Your task to perform on an android device: change notification settings in the gmail app Image 0: 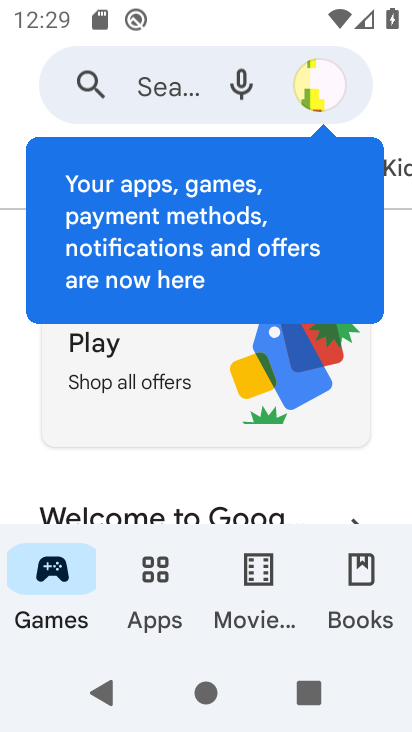
Step 0: press home button
Your task to perform on an android device: change notification settings in the gmail app Image 1: 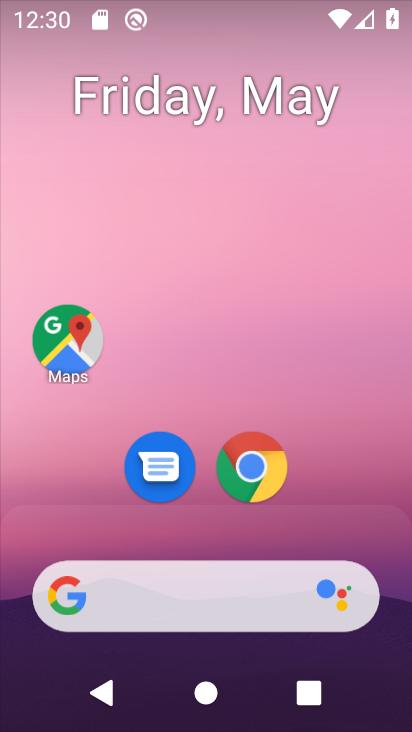
Step 1: drag from (378, 561) to (360, 89)
Your task to perform on an android device: change notification settings in the gmail app Image 2: 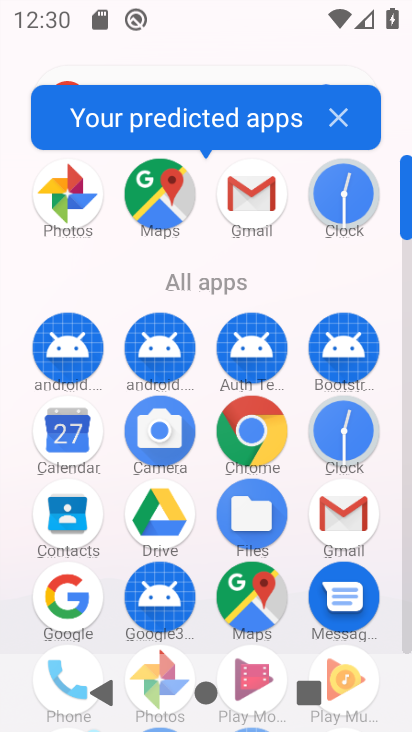
Step 2: click (255, 177)
Your task to perform on an android device: change notification settings in the gmail app Image 3: 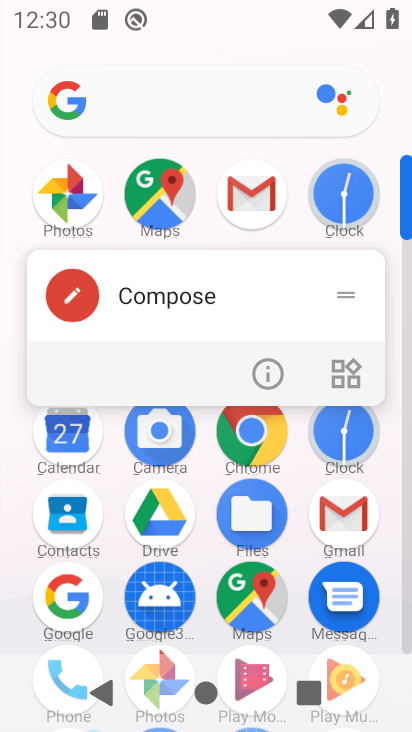
Step 3: click (253, 192)
Your task to perform on an android device: change notification settings in the gmail app Image 4: 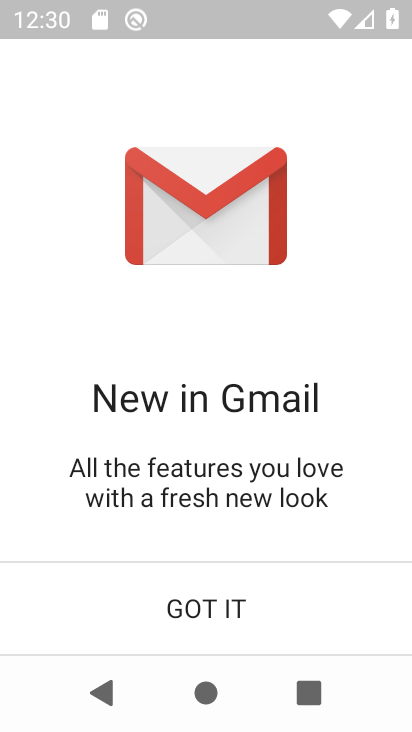
Step 4: click (215, 603)
Your task to perform on an android device: change notification settings in the gmail app Image 5: 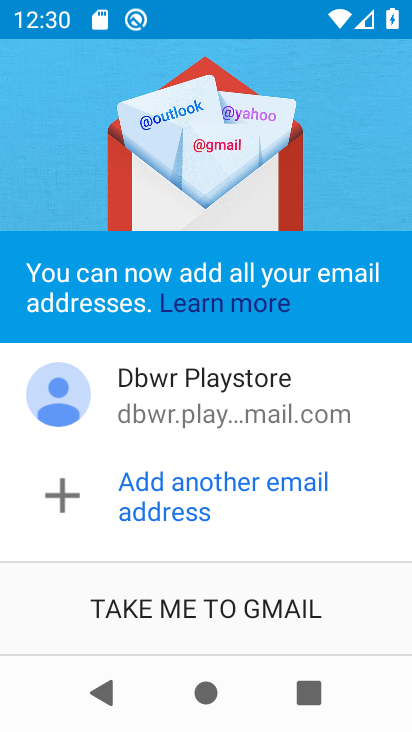
Step 5: click (214, 605)
Your task to perform on an android device: change notification settings in the gmail app Image 6: 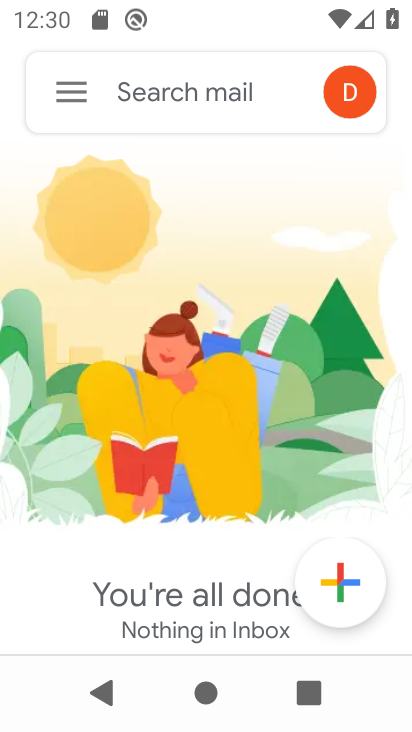
Step 6: click (74, 101)
Your task to perform on an android device: change notification settings in the gmail app Image 7: 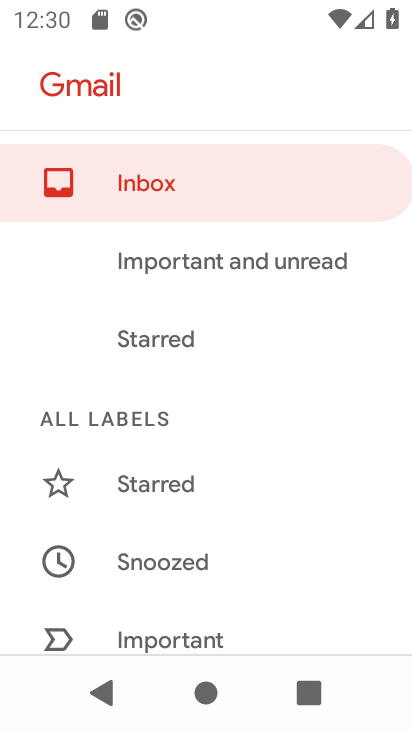
Step 7: drag from (166, 516) to (199, 162)
Your task to perform on an android device: change notification settings in the gmail app Image 8: 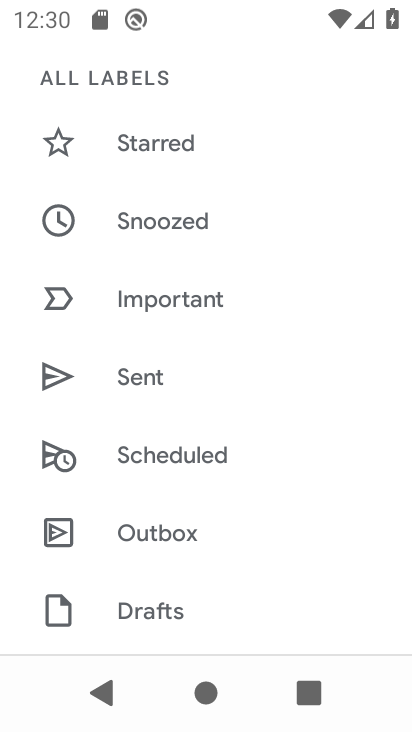
Step 8: drag from (186, 491) to (268, 120)
Your task to perform on an android device: change notification settings in the gmail app Image 9: 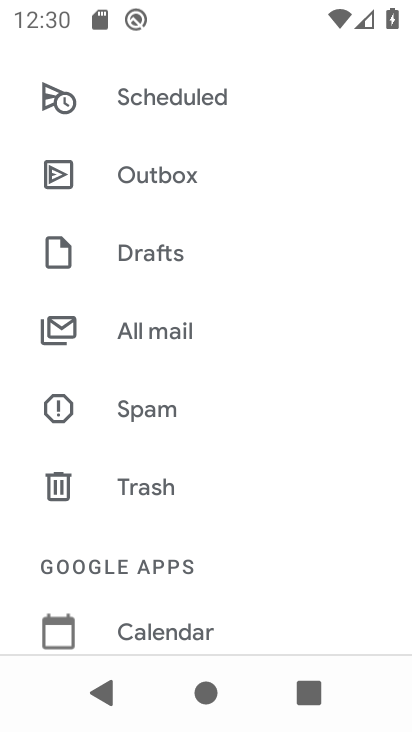
Step 9: drag from (203, 552) to (221, 158)
Your task to perform on an android device: change notification settings in the gmail app Image 10: 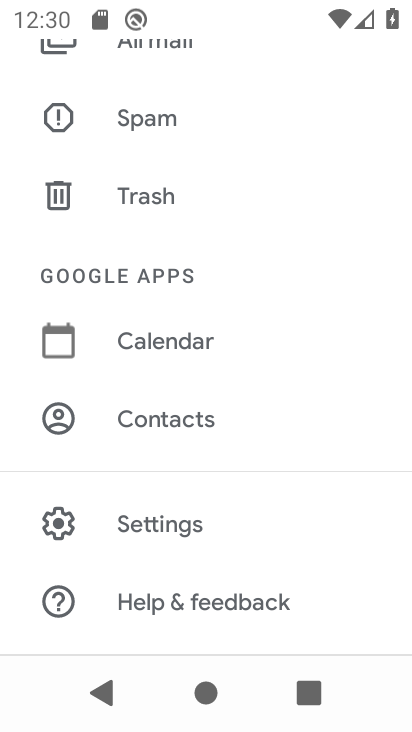
Step 10: click (163, 507)
Your task to perform on an android device: change notification settings in the gmail app Image 11: 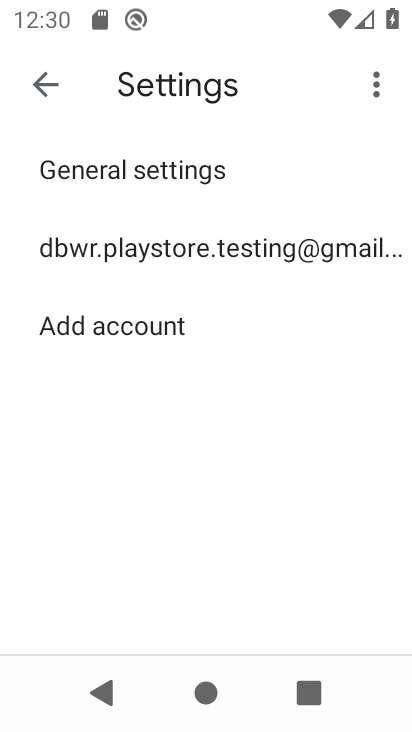
Step 11: click (51, 83)
Your task to perform on an android device: change notification settings in the gmail app Image 12: 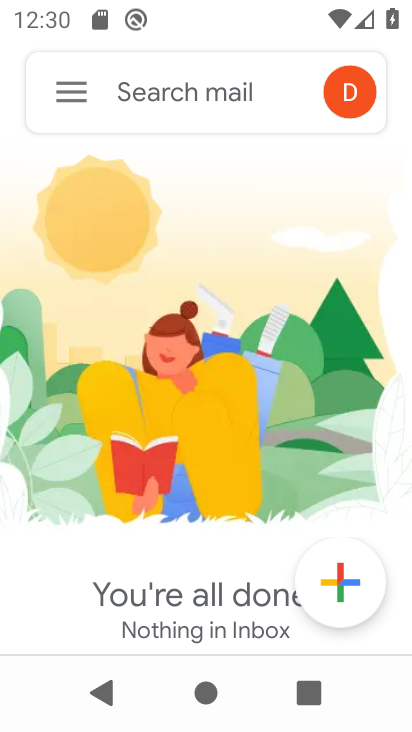
Step 12: click (73, 89)
Your task to perform on an android device: change notification settings in the gmail app Image 13: 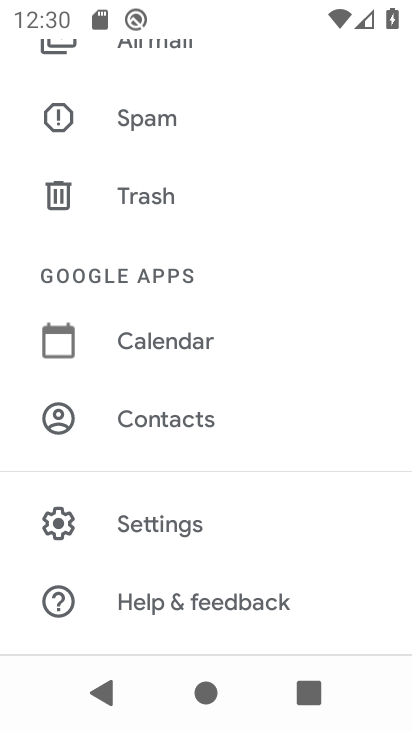
Step 13: drag from (190, 214) to (257, 634)
Your task to perform on an android device: change notification settings in the gmail app Image 14: 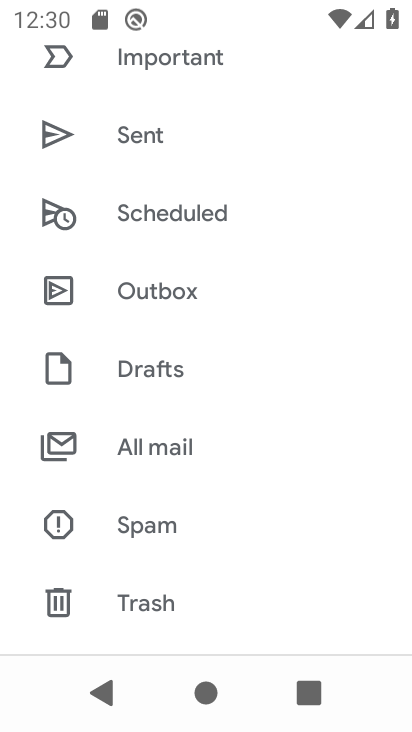
Step 14: drag from (233, 442) to (221, 638)
Your task to perform on an android device: change notification settings in the gmail app Image 15: 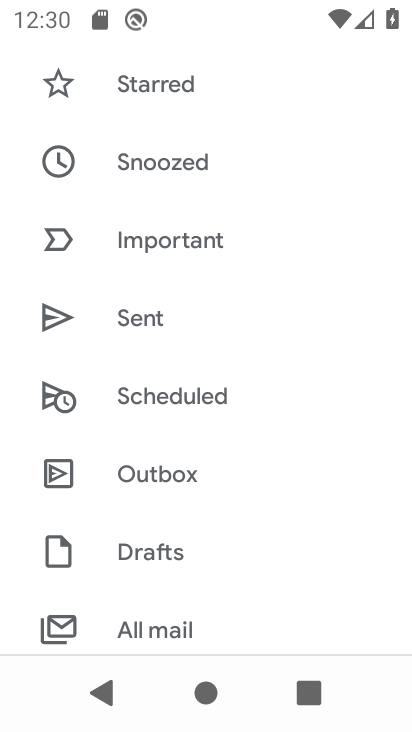
Step 15: drag from (205, 202) to (205, 550)
Your task to perform on an android device: change notification settings in the gmail app Image 16: 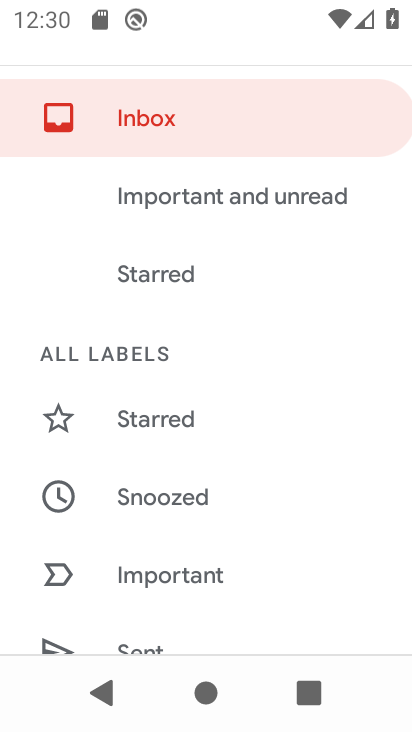
Step 16: drag from (216, 492) to (285, 132)
Your task to perform on an android device: change notification settings in the gmail app Image 17: 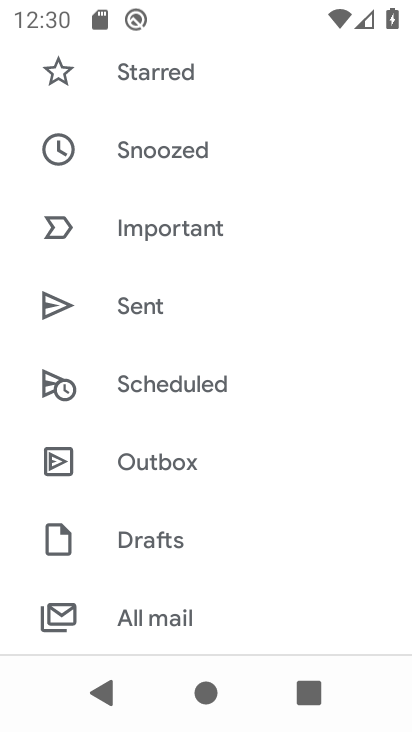
Step 17: drag from (291, 351) to (285, 74)
Your task to perform on an android device: change notification settings in the gmail app Image 18: 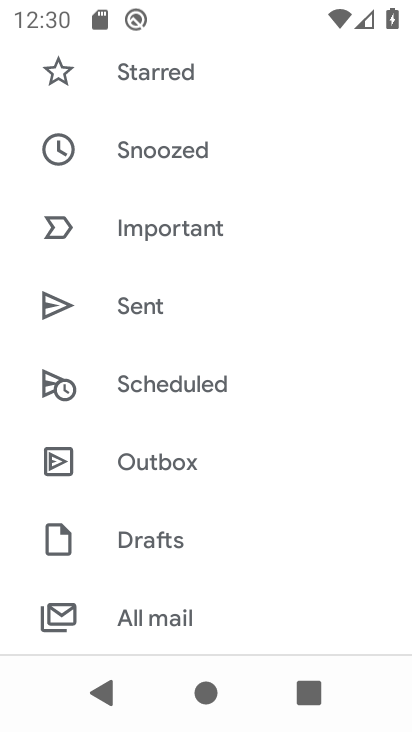
Step 18: drag from (263, 543) to (264, 175)
Your task to perform on an android device: change notification settings in the gmail app Image 19: 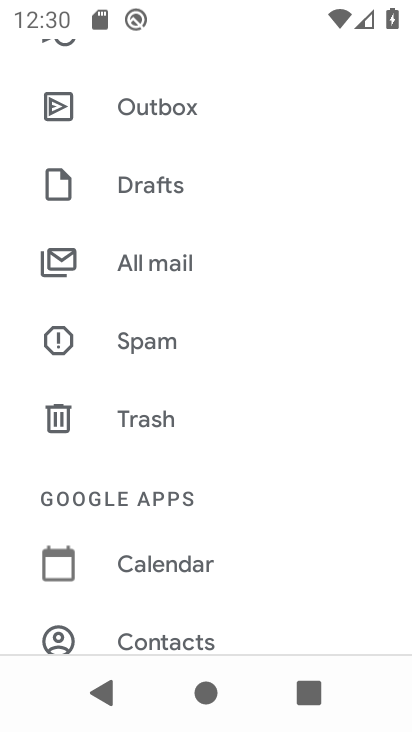
Step 19: drag from (292, 544) to (332, 164)
Your task to perform on an android device: change notification settings in the gmail app Image 20: 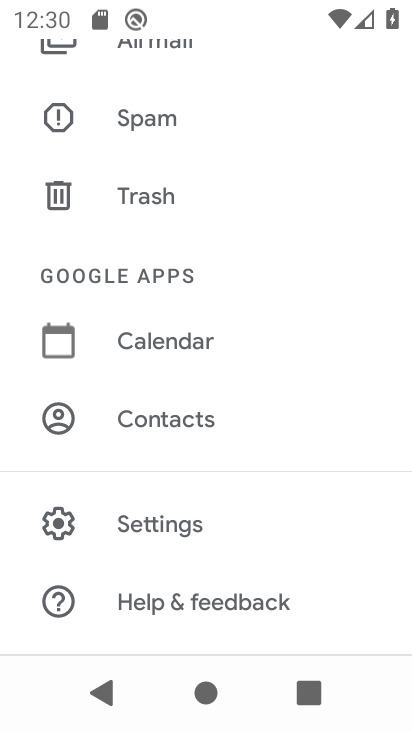
Step 20: click (157, 542)
Your task to perform on an android device: change notification settings in the gmail app Image 21: 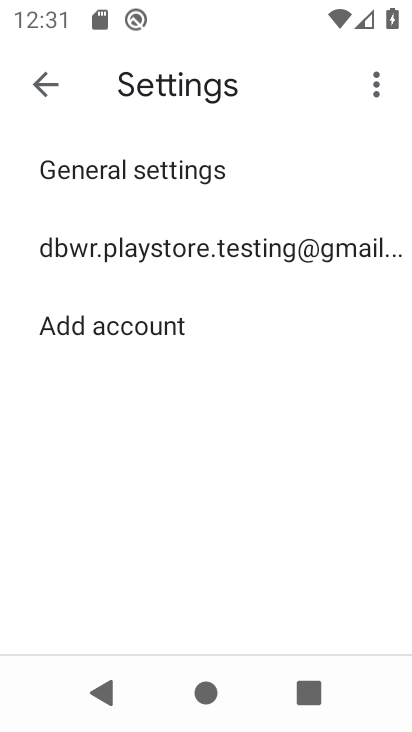
Step 21: click (170, 240)
Your task to perform on an android device: change notification settings in the gmail app Image 22: 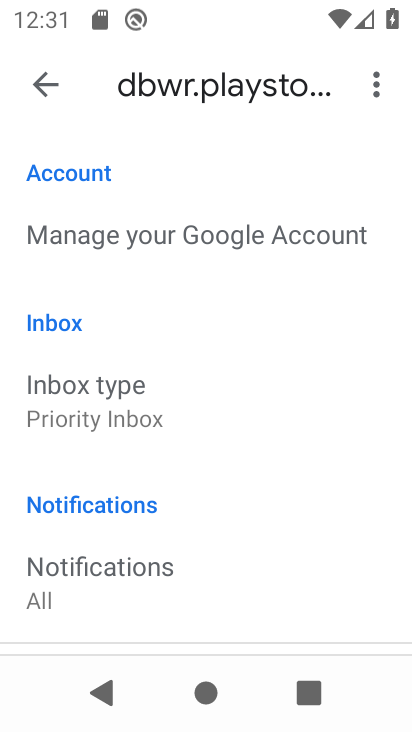
Step 22: drag from (164, 565) to (198, 297)
Your task to perform on an android device: change notification settings in the gmail app Image 23: 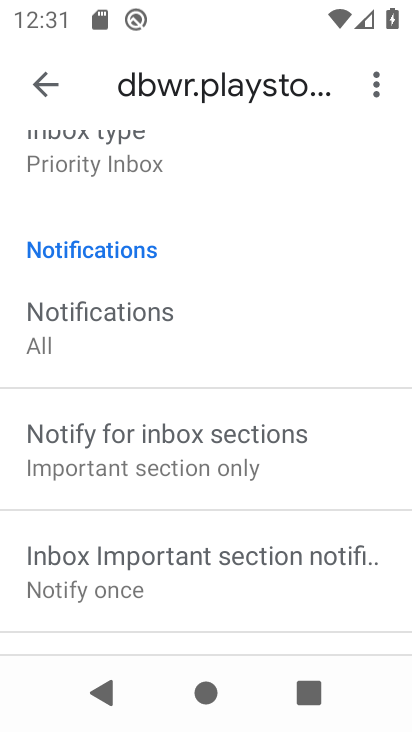
Step 23: click (124, 337)
Your task to perform on an android device: change notification settings in the gmail app Image 24: 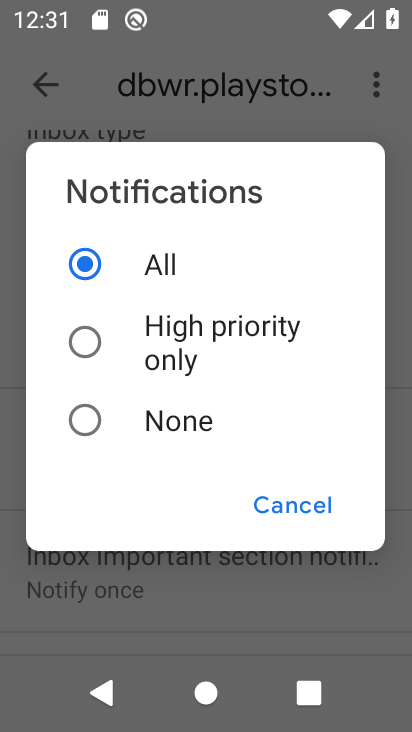
Step 24: click (79, 350)
Your task to perform on an android device: change notification settings in the gmail app Image 25: 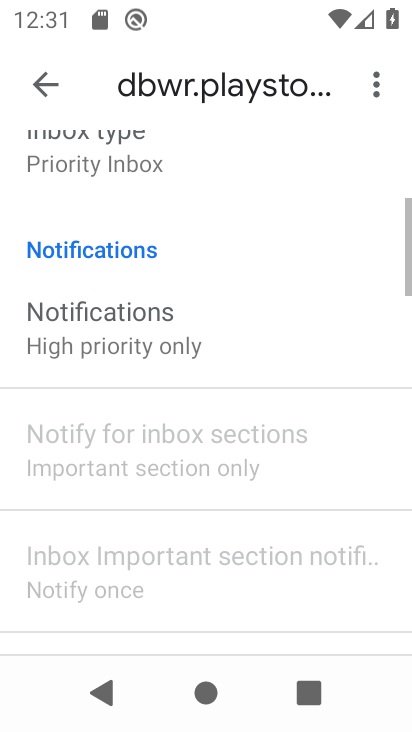
Step 25: task complete